Your task to perform on an android device: toggle show notifications on the lock screen Image 0: 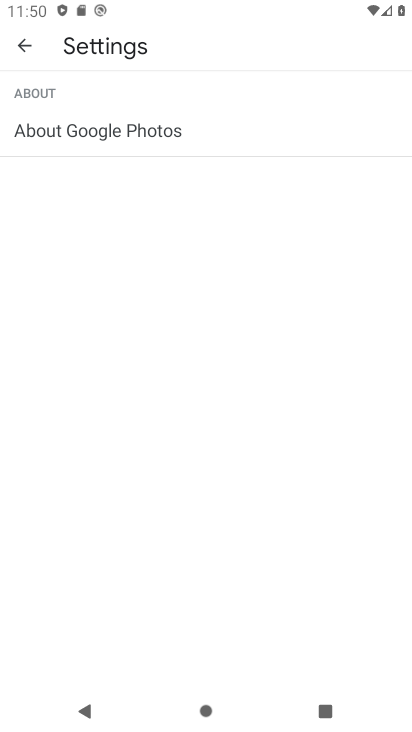
Step 0: press home button
Your task to perform on an android device: toggle show notifications on the lock screen Image 1: 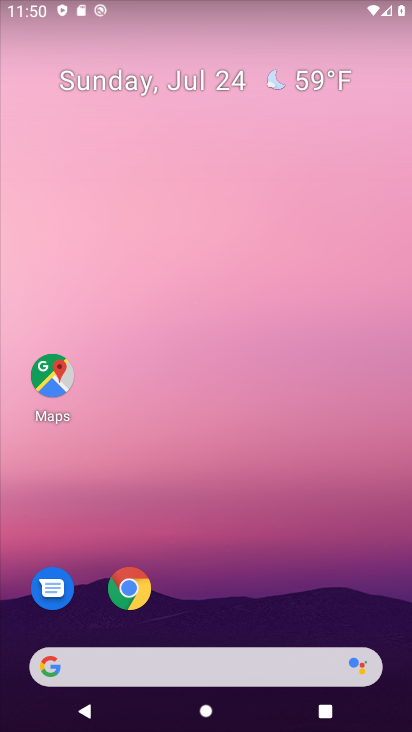
Step 1: drag from (334, 619) to (156, 34)
Your task to perform on an android device: toggle show notifications on the lock screen Image 2: 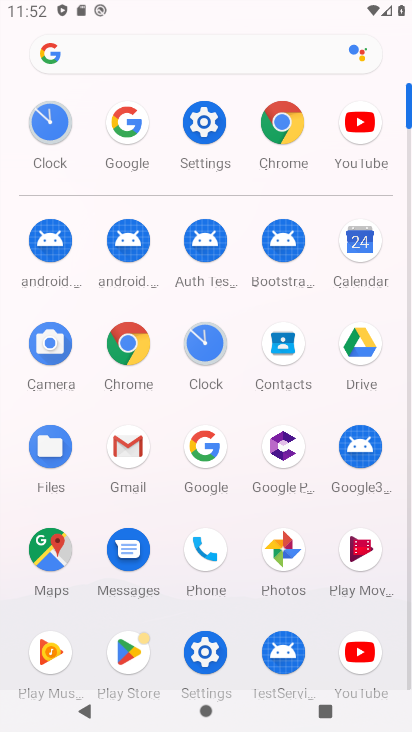
Step 2: click (213, 127)
Your task to perform on an android device: toggle show notifications on the lock screen Image 3: 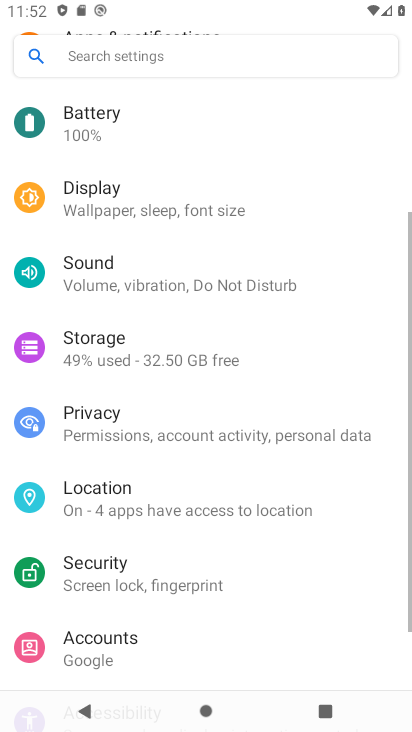
Step 3: drag from (162, 173) to (152, 558)
Your task to perform on an android device: toggle show notifications on the lock screen Image 4: 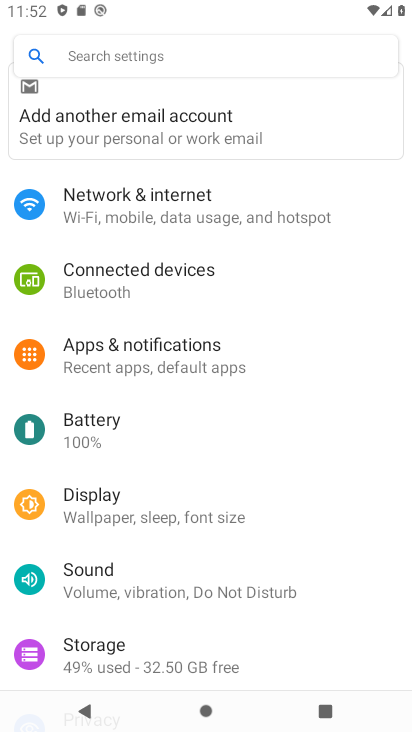
Step 4: click (193, 351)
Your task to perform on an android device: toggle show notifications on the lock screen Image 5: 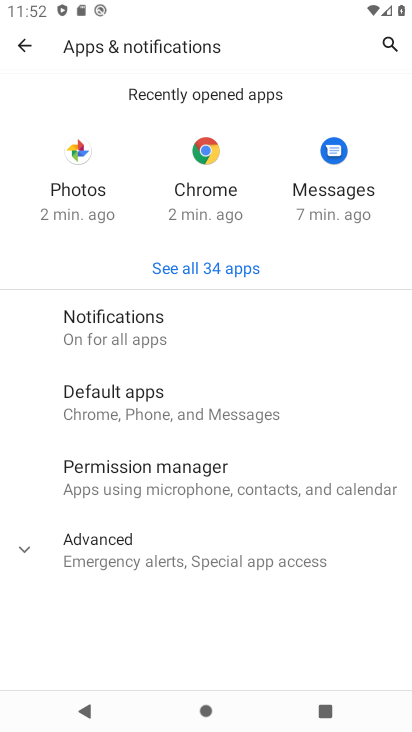
Step 5: click (107, 350)
Your task to perform on an android device: toggle show notifications on the lock screen Image 6: 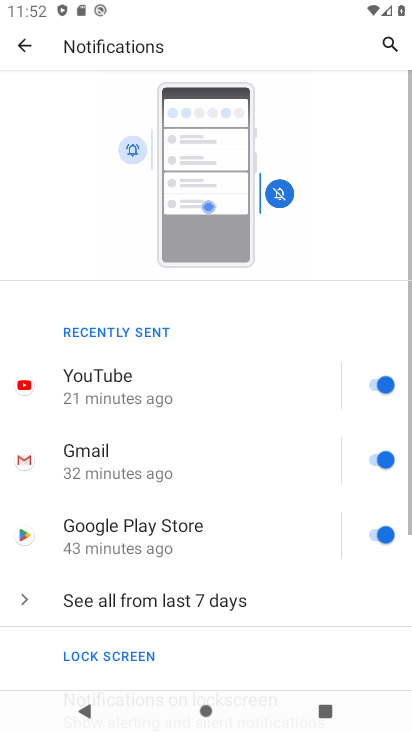
Step 6: drag from (136, 648) to (182, 168)
Your task to perform on an android device: toggle show notifications on the lock screen Image 7: 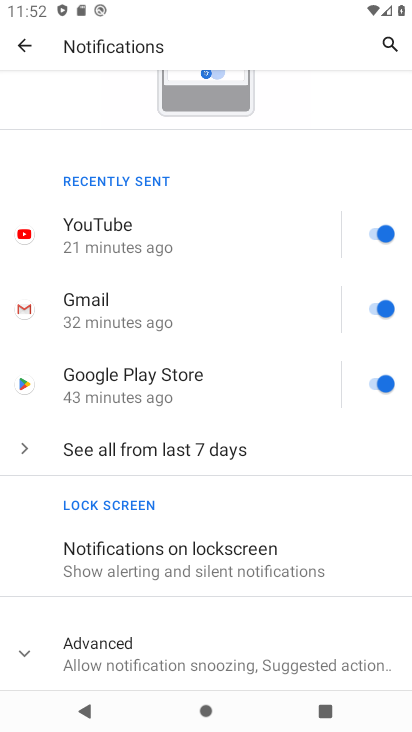
Step 7: click (127, 551)
Your task to perform on an android device: toggle show notifications on the lock screen Image 8: 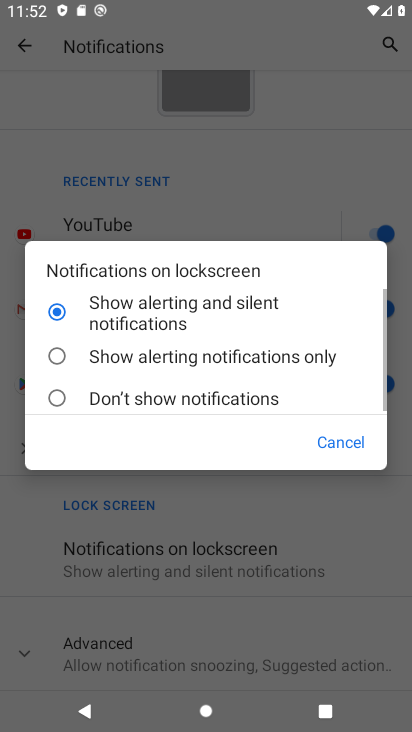
Step 8: click (79, 369)
Your task to perform on an android device: toggle show notifications on the lock screen Image 9: 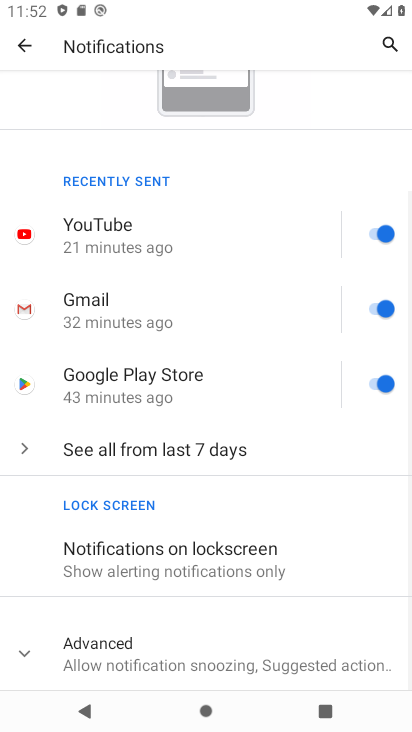
Step 9: task complete